Your task to perform on an android device: Search for Mexican restaurants on Maps Image 0: 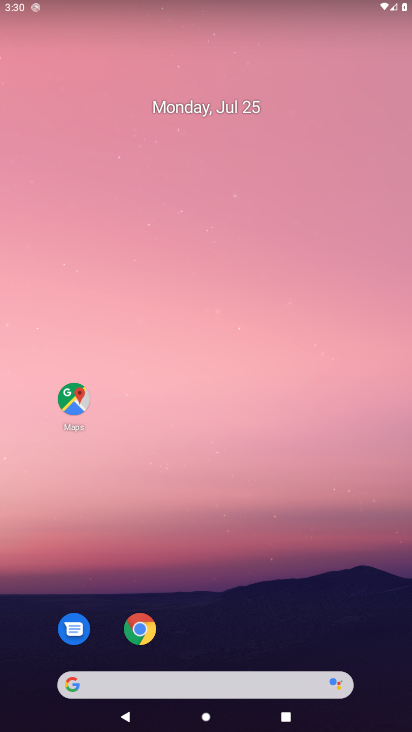
Step 0: click (55, 379)
Your task to perform on an android device: Search for Mexican restaurants on Maps Image 1: 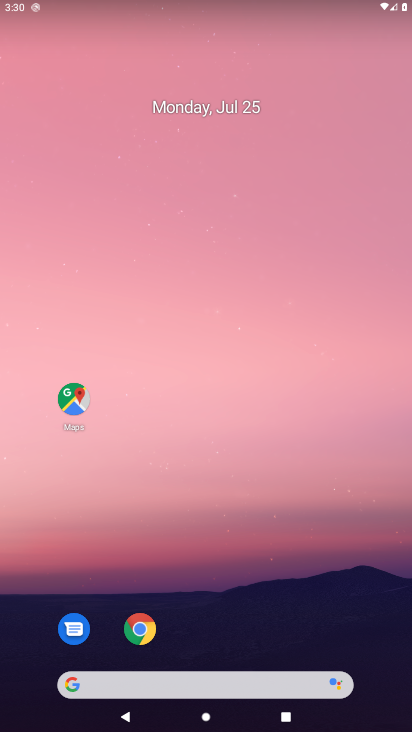
Step 1: click (84, 396)
Your task to perform on an android device: Search for Mexican restaurants on Maps Image 2: 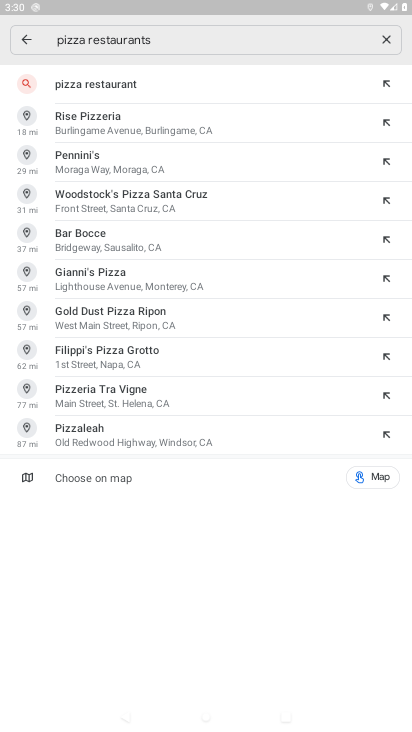
Step 2: click (23, 43)
Your task to perform on an android device: Search for Mexican restaurants on Maps Image 3: 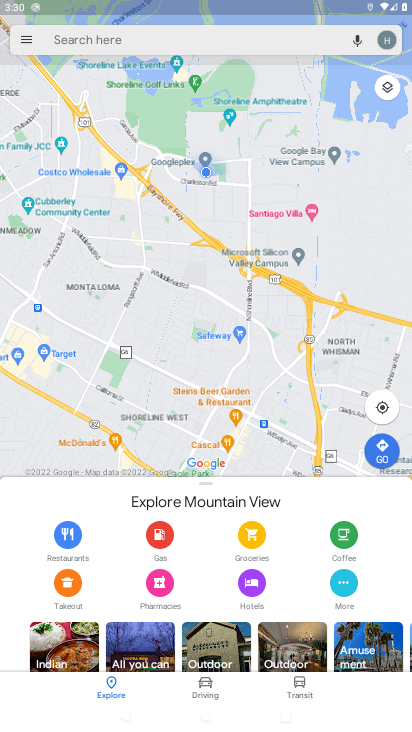
Step 3: click (87, 35)
Your task to perform on an android device: Search for Mexican restaurants on Maps Image 4: 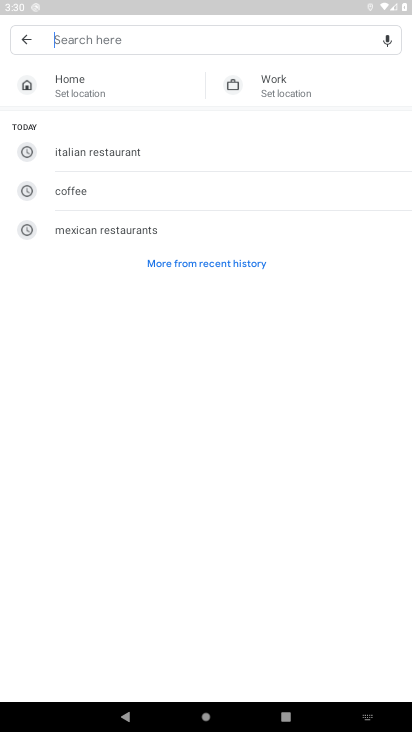
Step 4: type "Mexican restaurants "
Your task to perform on an android device: Search for Mexican restaurants on Maps Image 5: 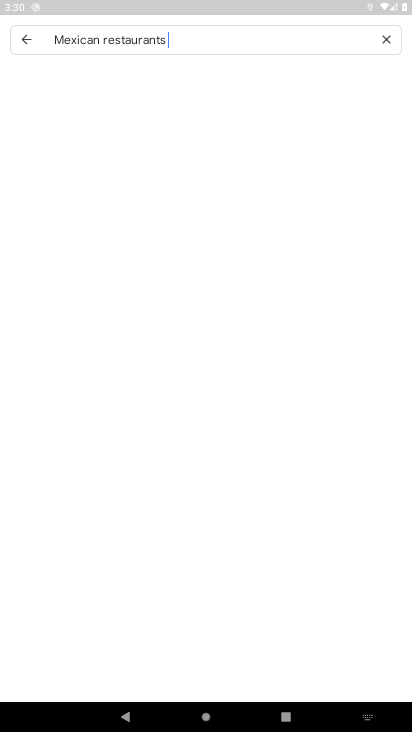
Step 5: type ""
Your task to perform on an android device: Search for Mexican restaurants on Maps Image 6: 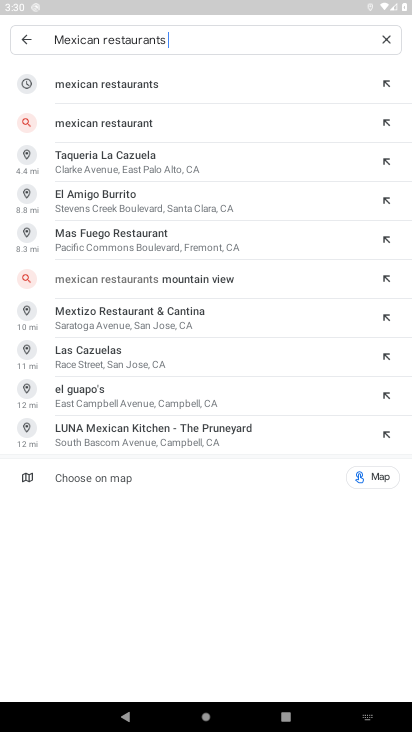
Step 6: click (93, 75)
Your task to perform on an android device: Search for Mexican restaurants on Maps Image 7: 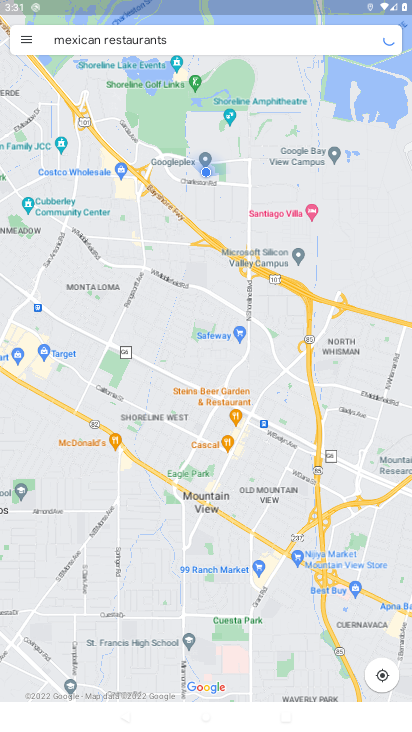
Step 7: task complete